Your task to perform on an android device: Go to Android settings Image 0: 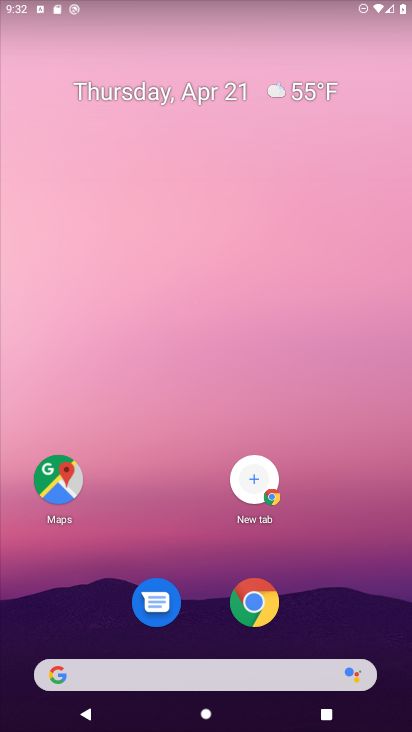
Step 0: drag from (182, 634) to (367, 18)
Your task to perform on an android device: Go to Android settings Image 1: 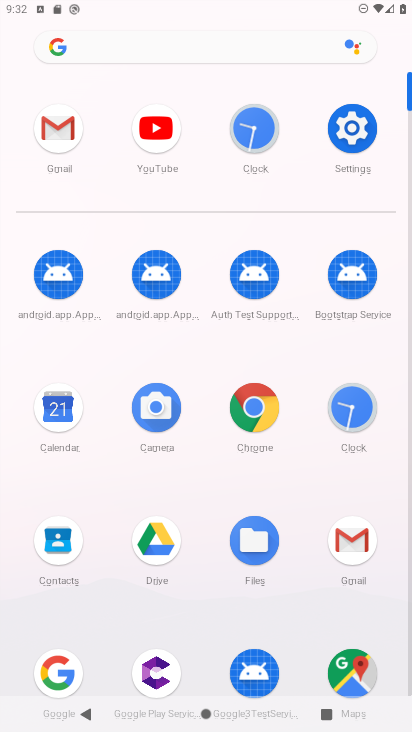
Step 1: click (337, 137)
Your task to perform on an android device: Go to Android settings Image 2: 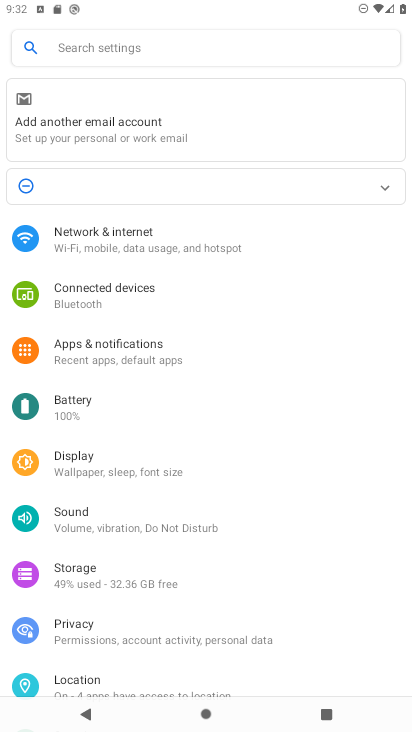
Step 2: drag from (51, 647) to (145, 238)
Your task to perform on an android device: Go to Android settings Image 3: 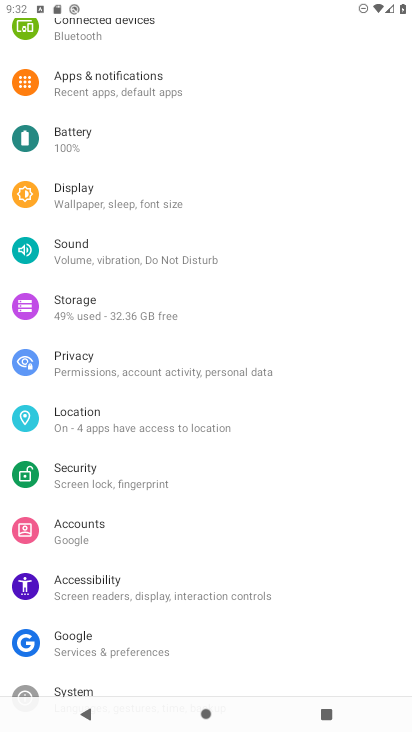
Step 3: drag from (88, 670) to (161, 238)
Your task to perform on an android device: Go to Android settings Image 4: 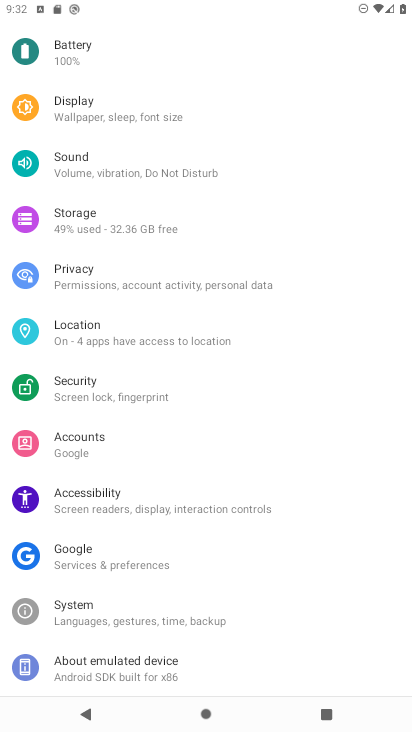
Step 4: click (99, 670)
Your task to perform on an android device: Go to Android settings Image 5: 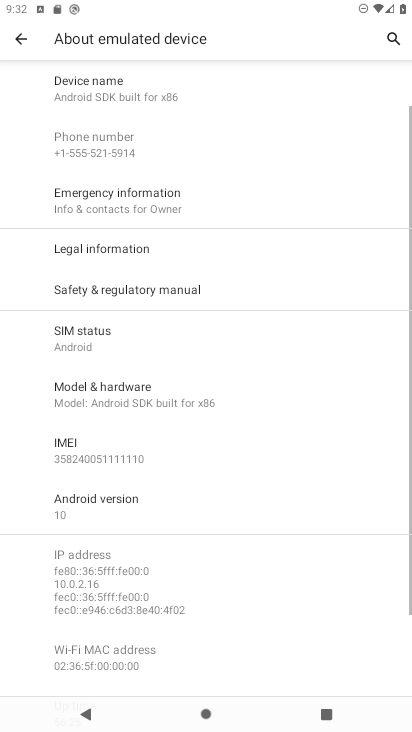
Step 5: click (136, 351)
Your task to perform on an android device: Go to Android settings Image 6: 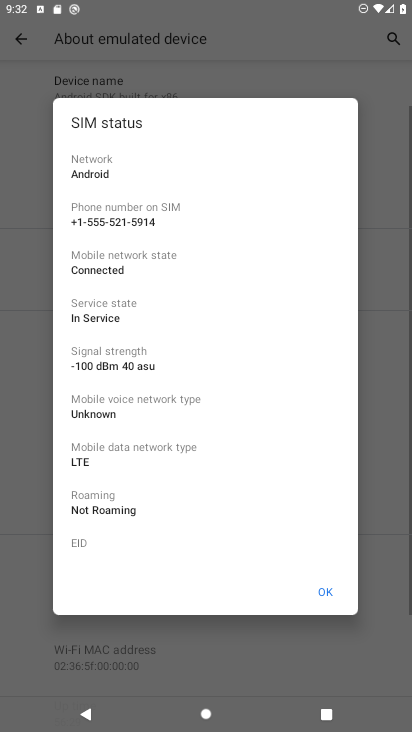
Step 6: task complete